Your task to perform on an android device: turn notification dots off Image 0: 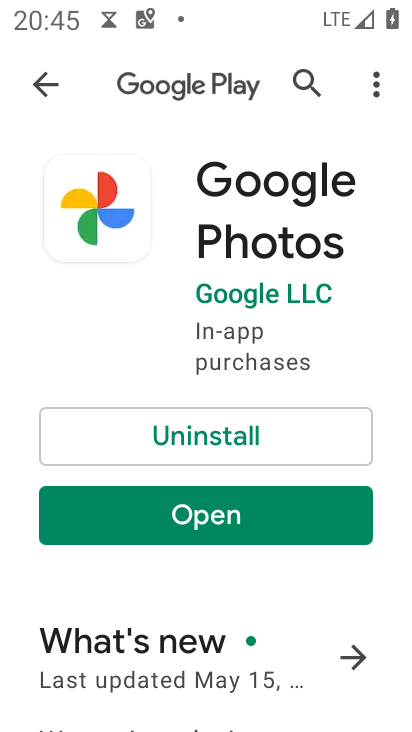
Step 0: press home button
Your task to perform on an android device: turn notification dots off Image 1: 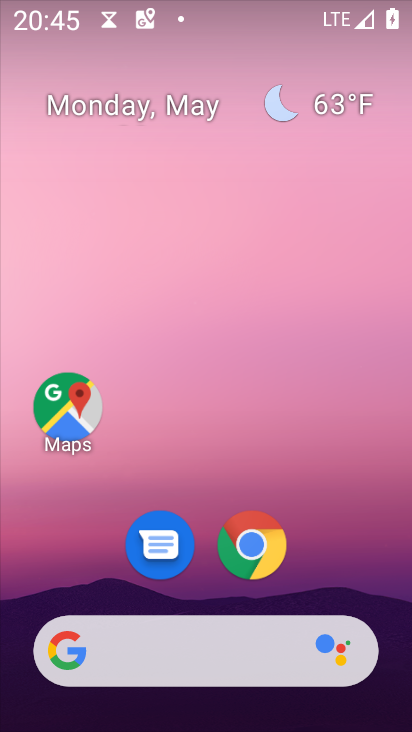
Step 1: drag from (186, 662) to (179, 267)
Your task to perform on an android device: turn notification dots off Image 2: 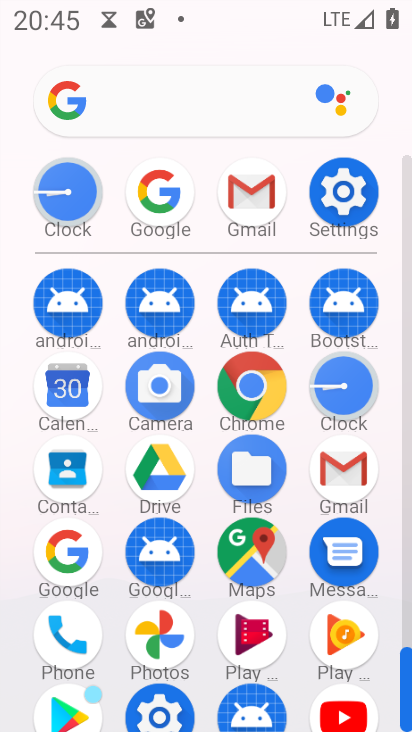
Step 2: click (347, 183)
Your task to perform on an android device: turn notification dots off Image 3: 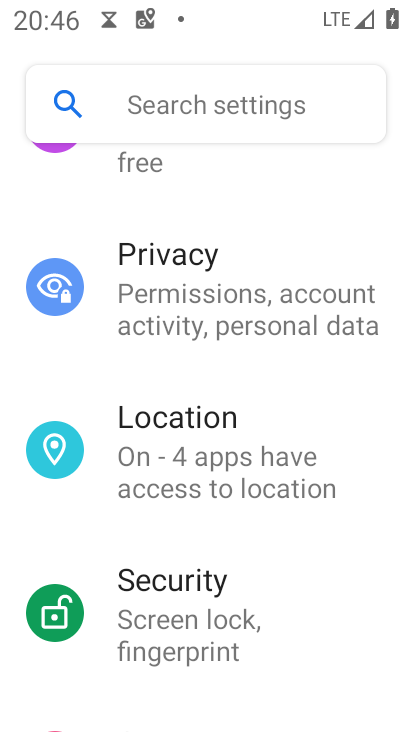
Step 3: drag from (174, 217) to (189, 547)
Your task to perform on an android device: turn notification dots off Image 4: 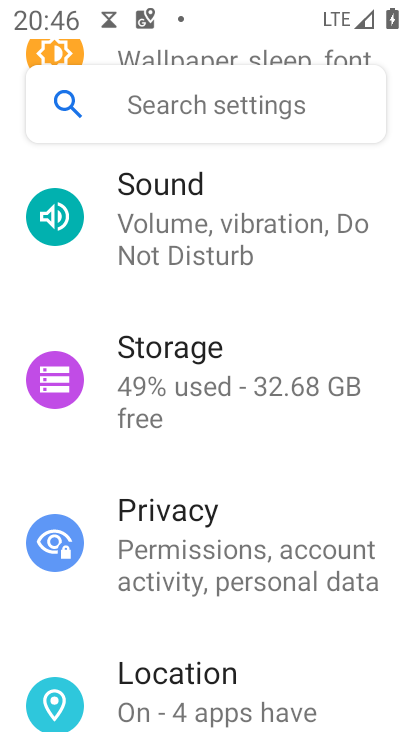
Step 4: drag from (201, 346) to (212, 729)
Your task to perform on an android device: turn notification dots off Image 5: 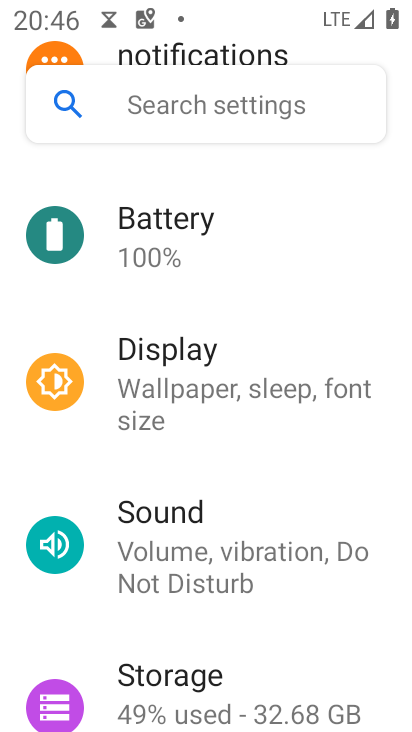
Step 5: drag from (153, 323) to (165, 723)
Your task to perform on an android device: turn notification dots off Image 6: 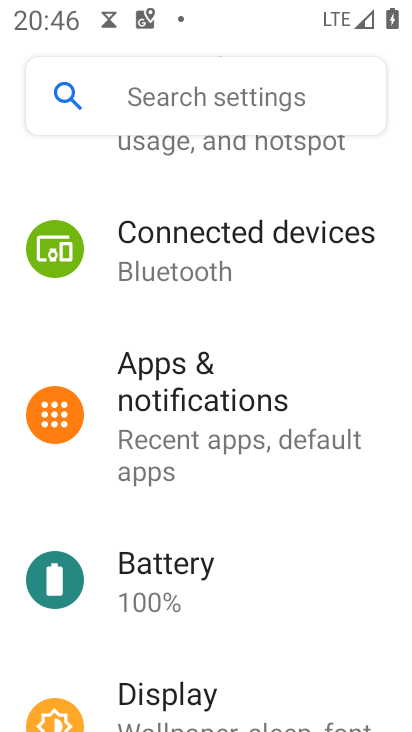
Step 6: click (188, 446)
Your task to perform on an android device: turn notification dots off Image 7: 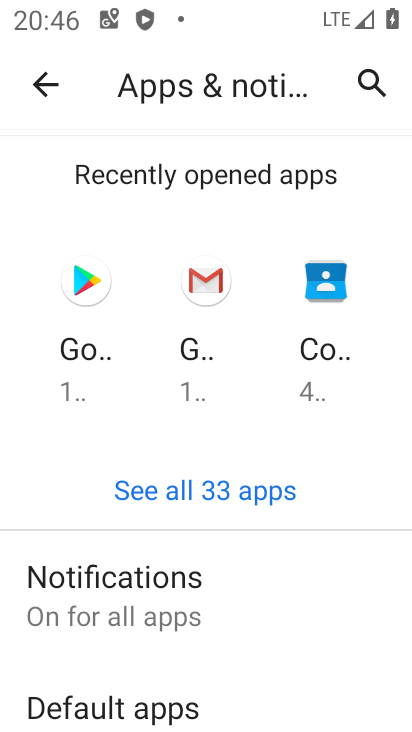
Step 7: click (141, 619)
Your task to perform on an android device: turn notification dots off Image 8: 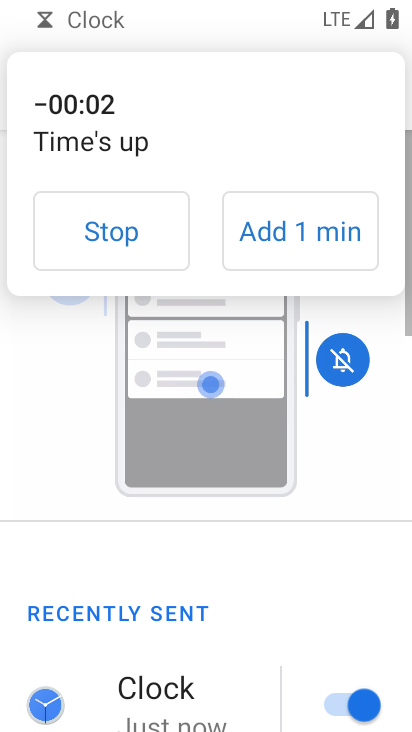
Step 8: drag from (224, 606) to (242, 79)
Your task to perform on an android device: turn notification dots off Image 9: 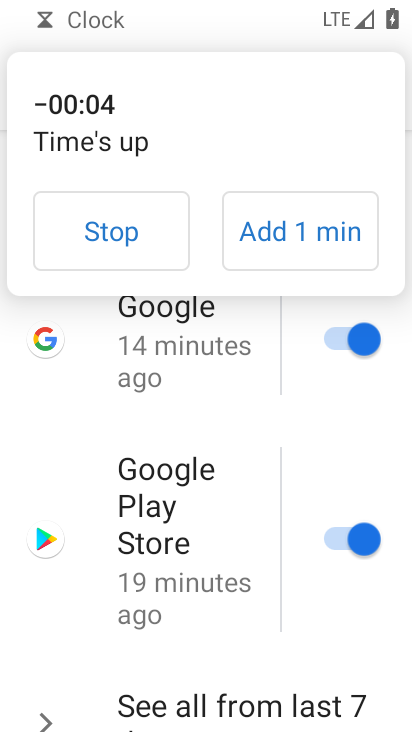
Step 9: drag from (222, 660) to (226, 87)
Your task to perform on an android device: turn notification dots off Image 10: 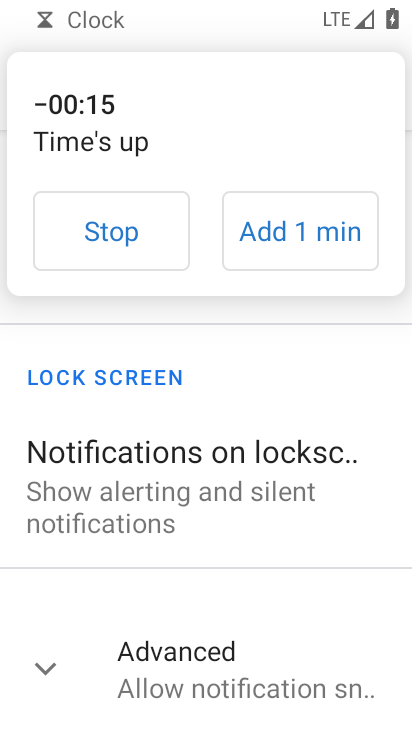
Step 10: click (181, 654)
Your task to perform on an android device: turn notification dots off Image 11: 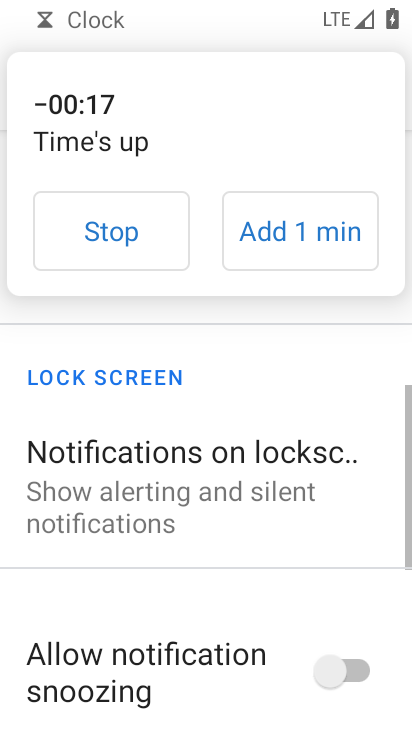
Step 11: drag from (163, 573) to (130, 36)
Your task to perform on an android device: turn notification dots off Image 12: 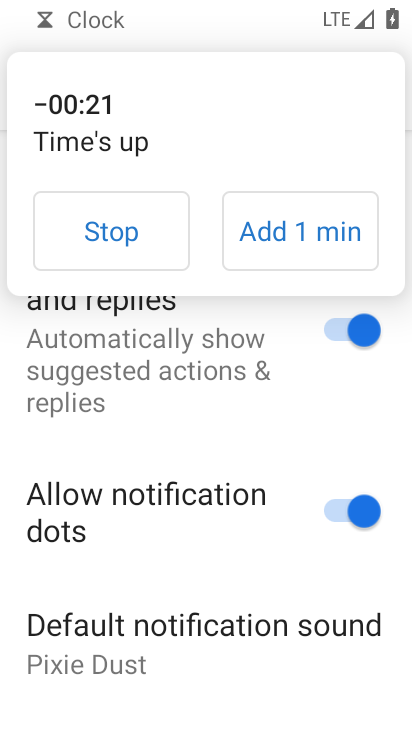
Step 12: click (344, 515)
Your task to perform on an android device: turn notification dots off Image 13: 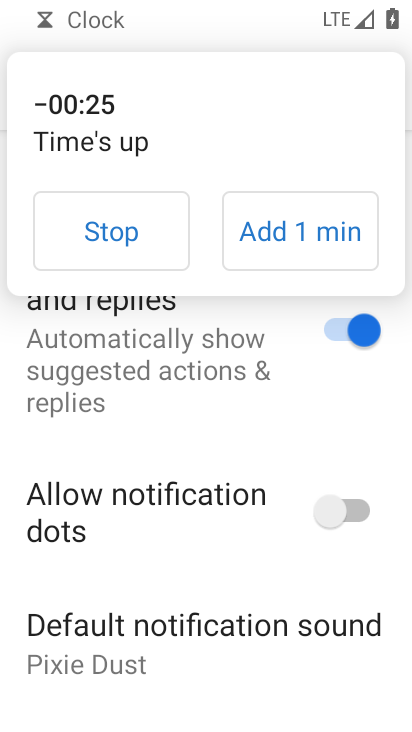
Step 13: task complete